Your task to perform on an android device: open app "Google Calendar" Image 0: 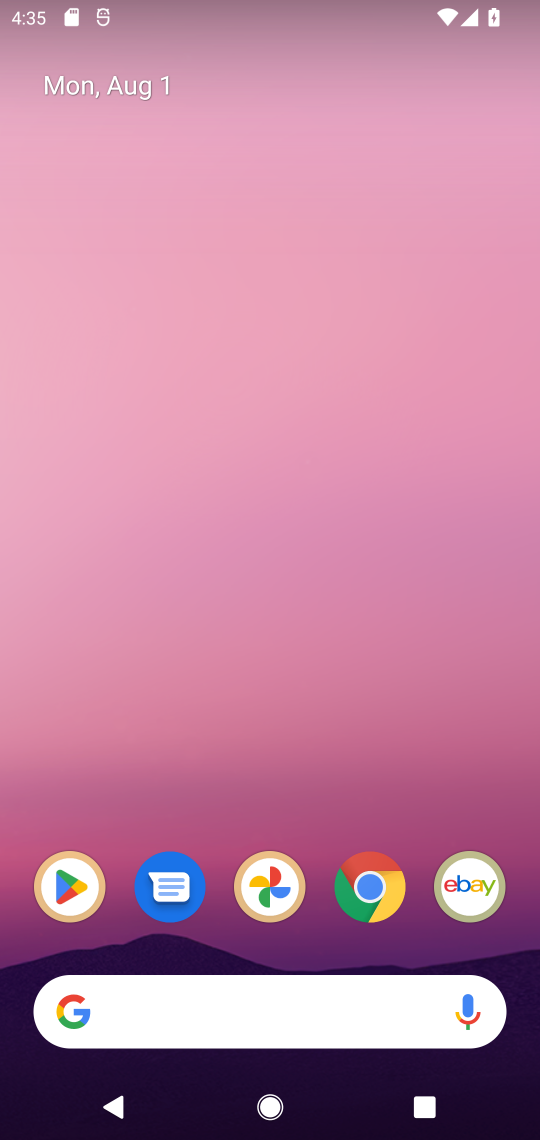
Step 0: click (351, 887)
Your task to perform on an android device: open app "Google Calendar" Image 1: 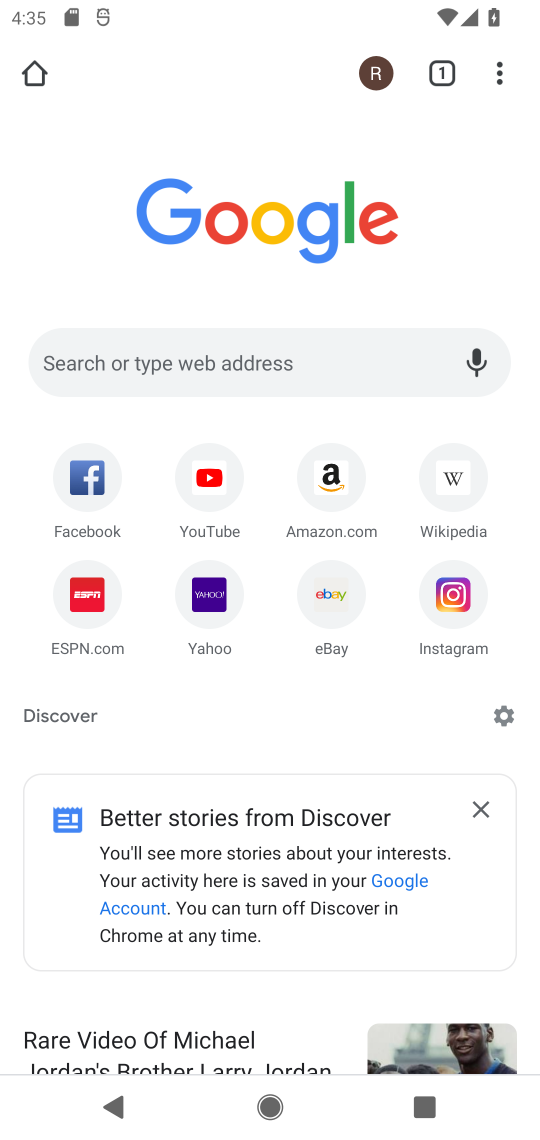
Step 1: task complete